Your task to perform on an android device: Open wifi settings Image 0: 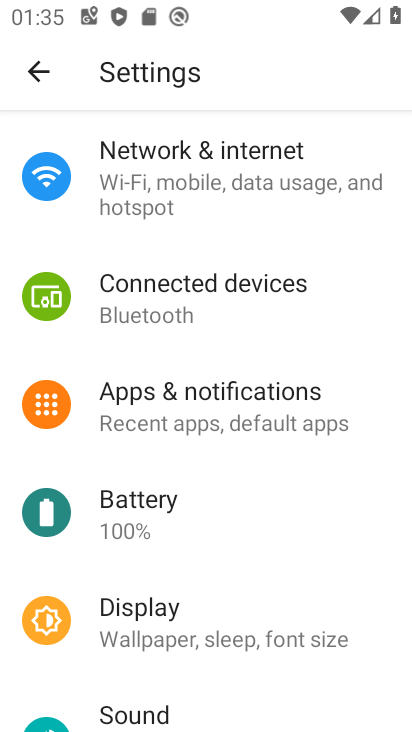
Step 0: click (244, 146)
Your task to perform on an android device: Open wifi settings Image 1: 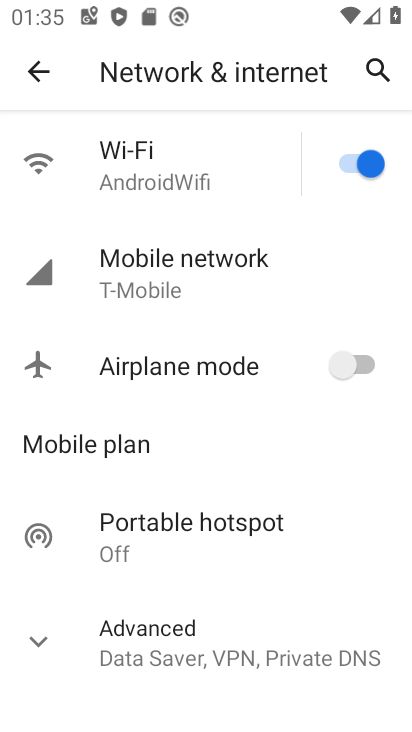
Step 1: click (129, 163)
Your task to perform on an android device: Open wifi settings Image 2: 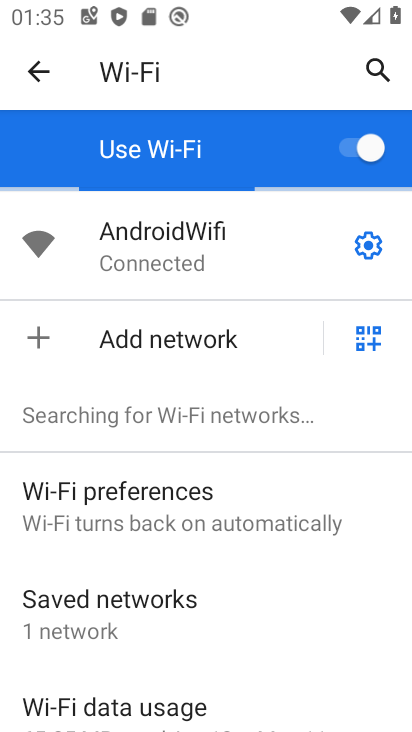
Step 2: click (372, 244)
Your task to perform on an android device: Open wifi settings Image 3: 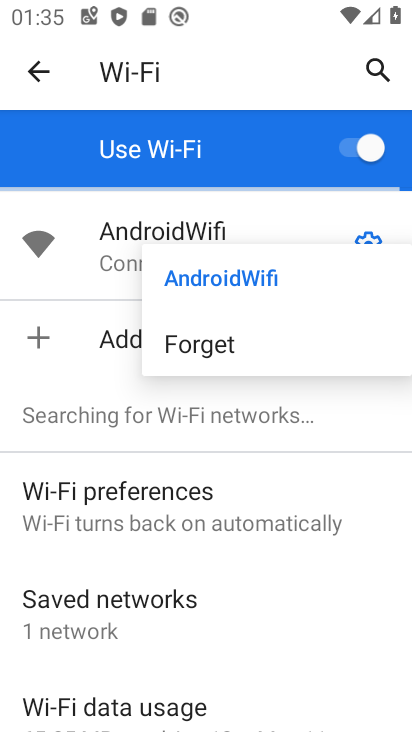
Step 3: click (365, 218)
Your task to perform on an android device: Open wifi settings Image 4: 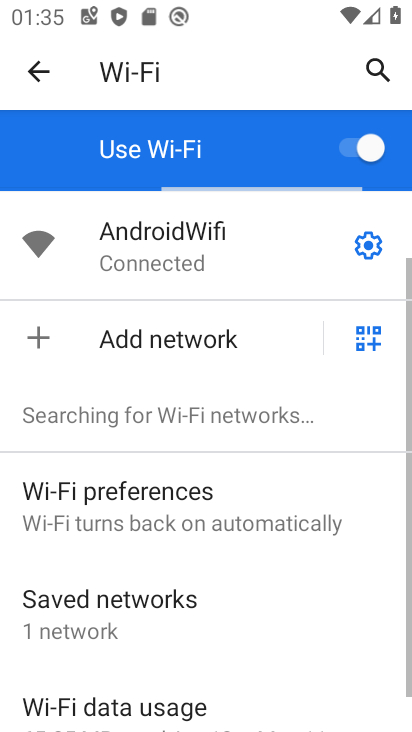
Step 4: click (369, 244)
Your task to perform on an android device: Open wifi settings Image 5: 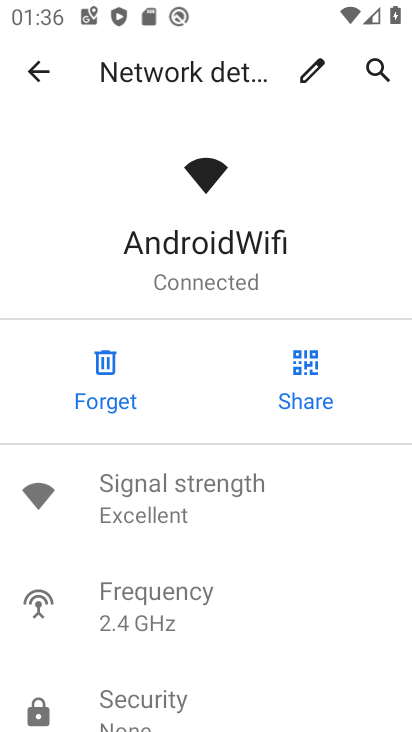
Step 5: task complete